Your task to perform on an android device: clear history in the chrome app Image 0: 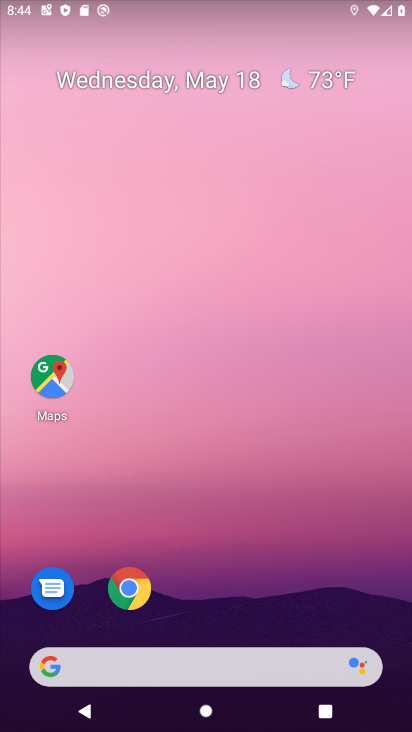
Step 0: drag from (307, 565) to (286, 13)
Your task to perform on an android device: clear history in the chrome app Image 1: 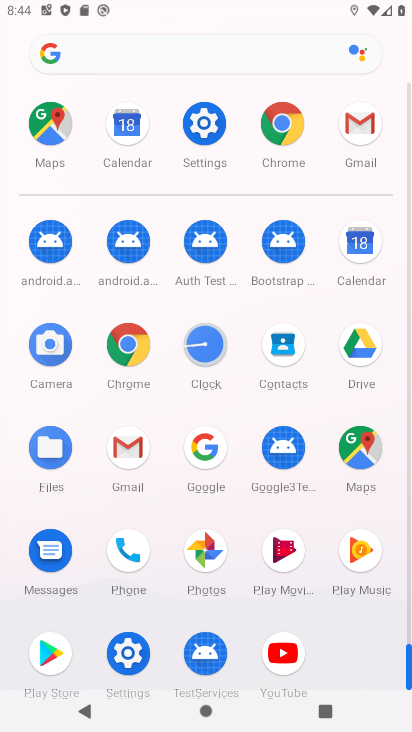
Step 1: click (139, 342)
Your task to perform on an android device: clear history in the chrome app Image 2: 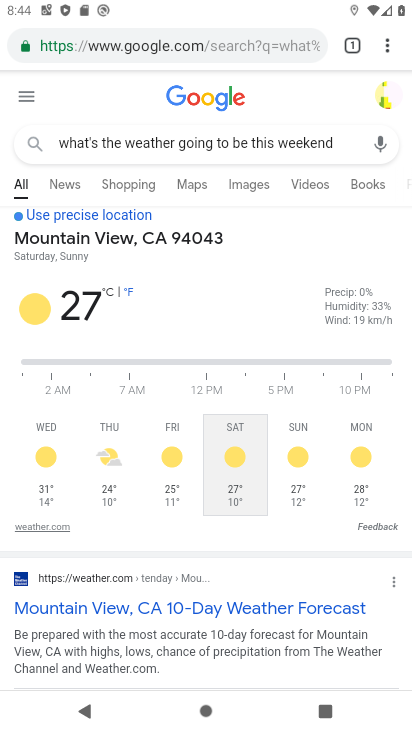
Step 2: drag from (385, 43) to (240, 252)
Your task to perform on an android device: clear history in the chrome app Image 3: 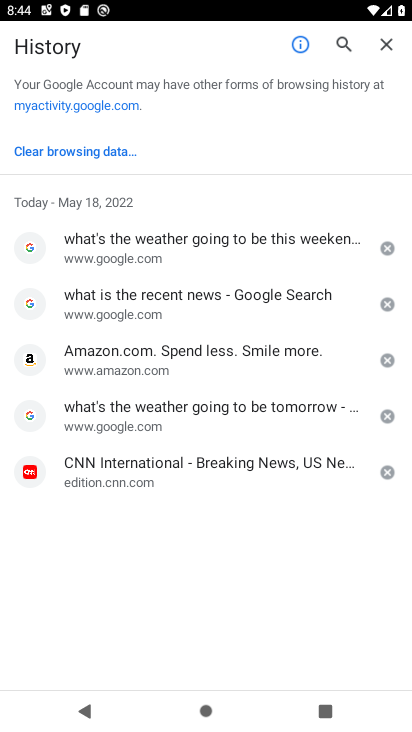
Step 3: click (110, 145)
Your task to perform on an android device: clear history in the chrome app Image 4: 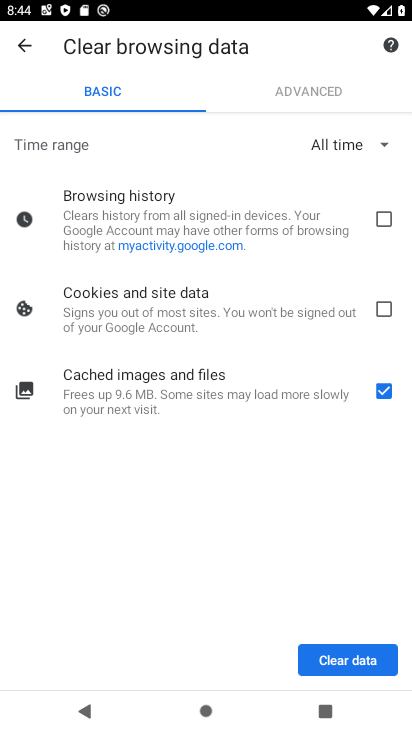
Step 4: click (375, 210)
Your task to perform on an android device: clear history in the chrome app Image 5: 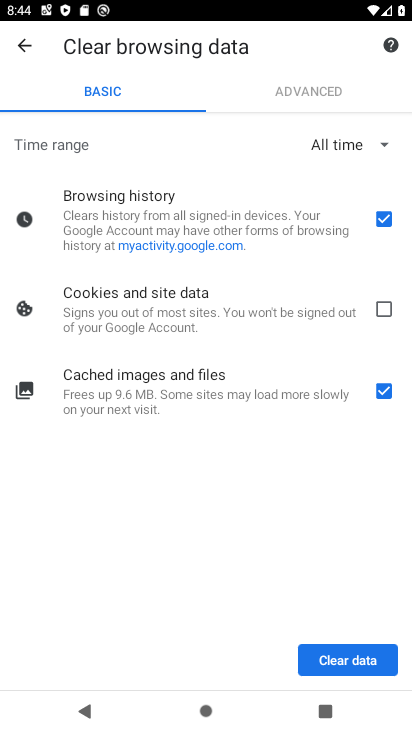
Step 5: click (384, 311)
Your task to perform on an android device: clear history in the chrome app Image 6: 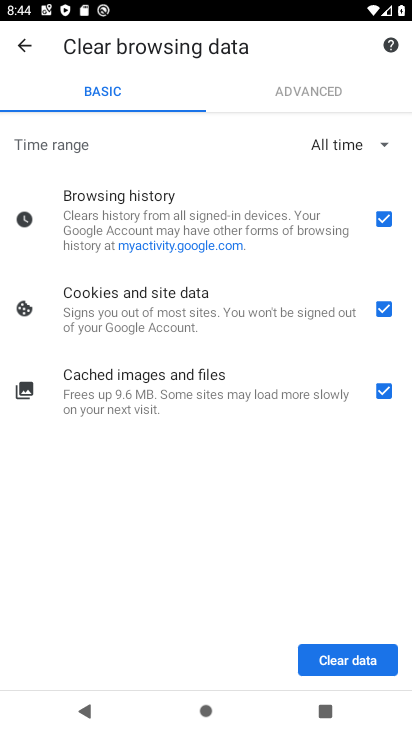
Step 6: click (352, 666)
Your task to perform on an android device: clear history in the chrome app Image 7: 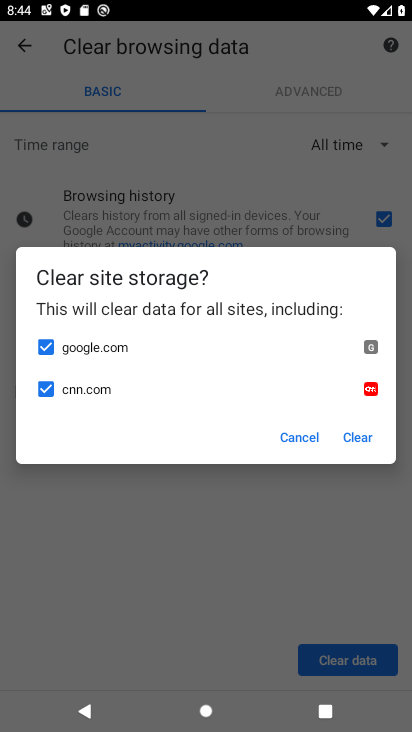
Step 7: click (354, 444)
Your task to perform on an android device: clear history in the chrome app Image 8: 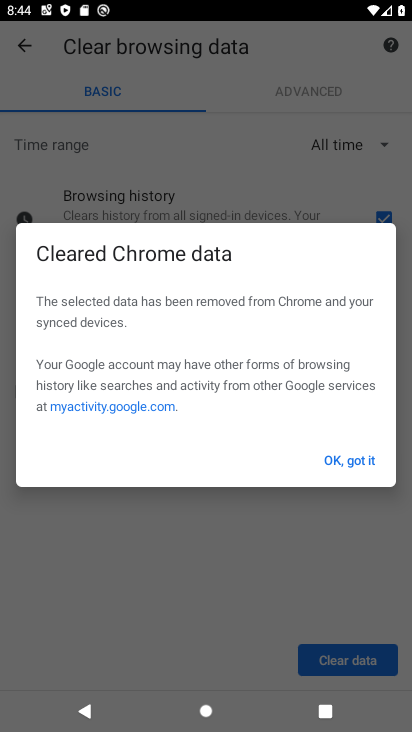
Step 8: click (361, 460)
Your task to perform on an android device: clear history in the chrome app Image 9: 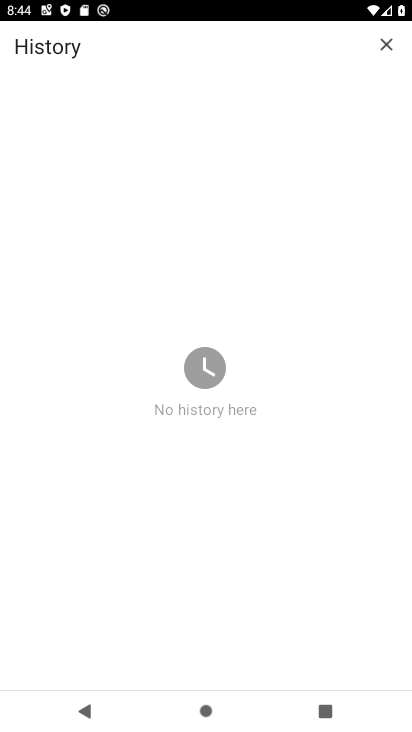
Step 9: task complete